Your task to perform on an android device: turn off data saver in the chrome app Image 0: 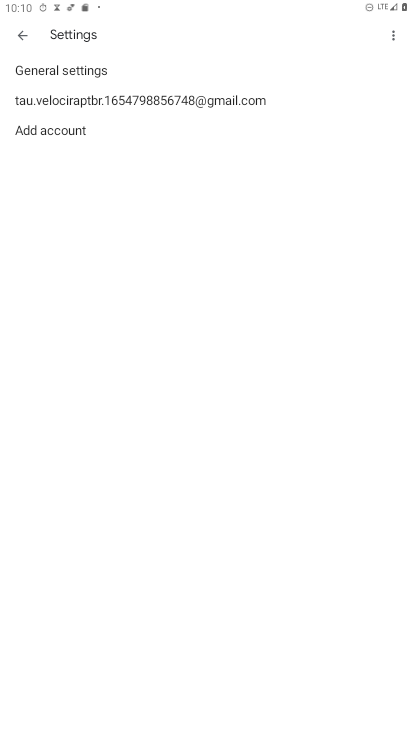
Step 0: press home button
Your task to perform on an android device: turn off data saver in the chrome app Image 1: 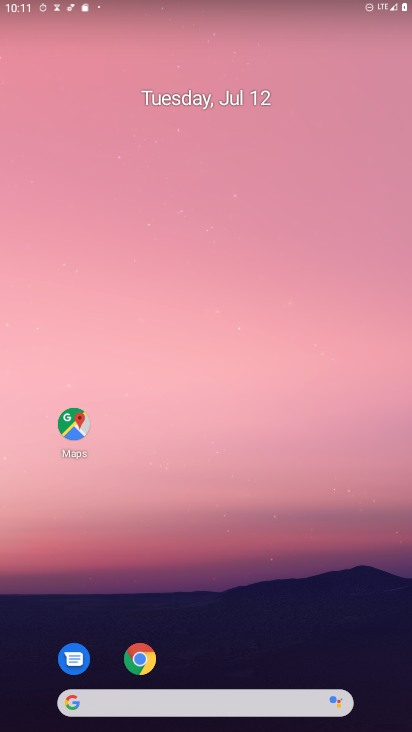
Step 1: click (140, 657)
Your task to perform on an android device: turn off data saver in the chrome app Image 2: 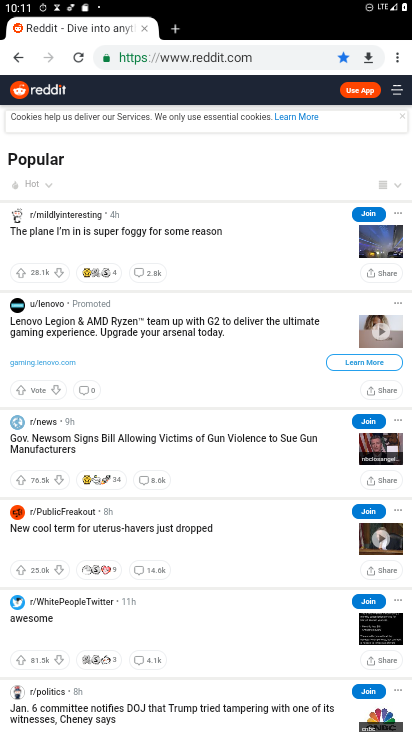
Step 2: click (398, 57)
Your task to perform on an android device: turn off data saver in the chrome app Image 3: 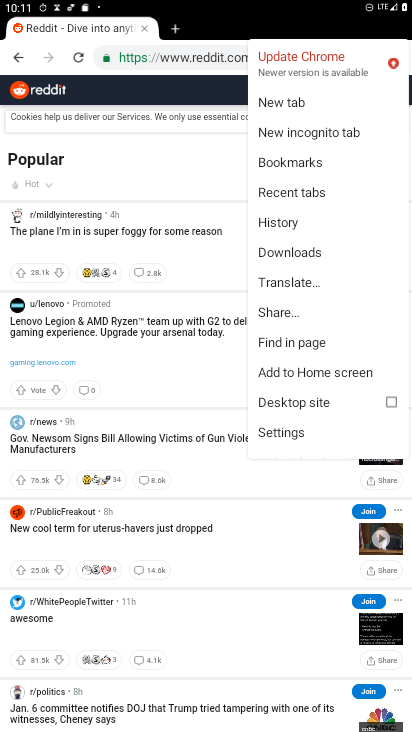
Step 3: click (291, 428)
Your task to perform on an android device: turn off data saver in the chrome app Image 4: 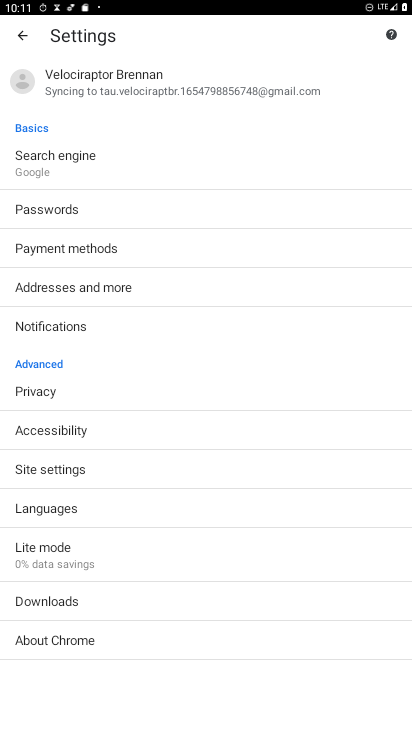
Step 4: click (80, 555)
Your task to perform on an android device: turn off data saver in the chrome app Image 5: 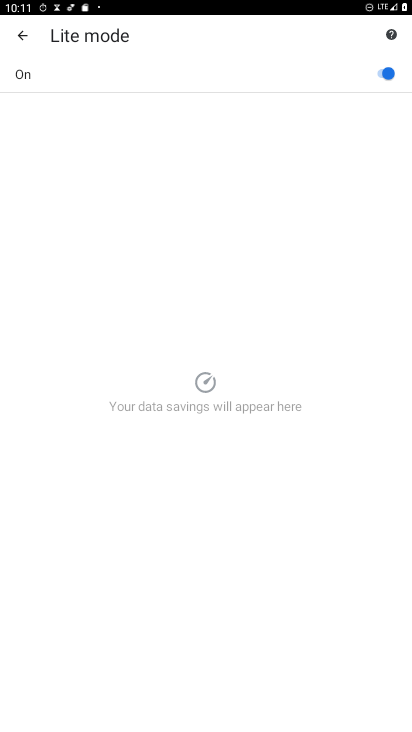
Step 5: click (380, 72)
Your task to perform on an android device: turn off data saver in the chrome app Image 6: 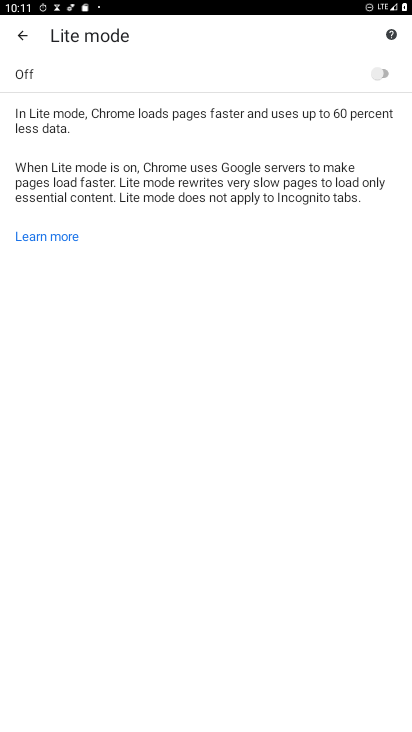
Step 6: task complete